Your task to perform on an android device: turn on showing notifications on the lock screen Image 0: 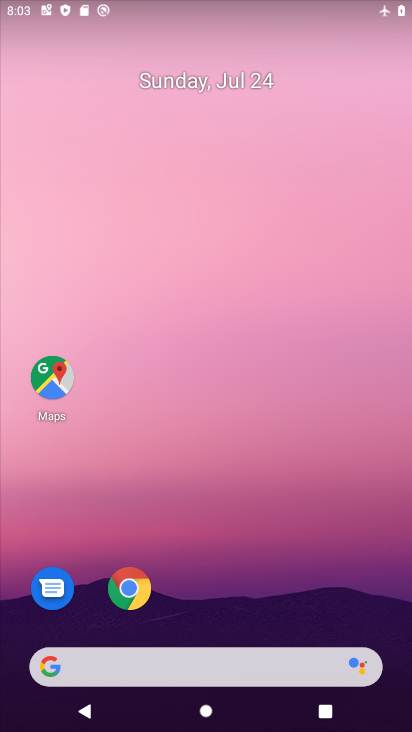
Step 0: drag from (330, 615) to (283, 58)
Your task to perform on an android device: turn on showing notifications on the lock screen Image 1: 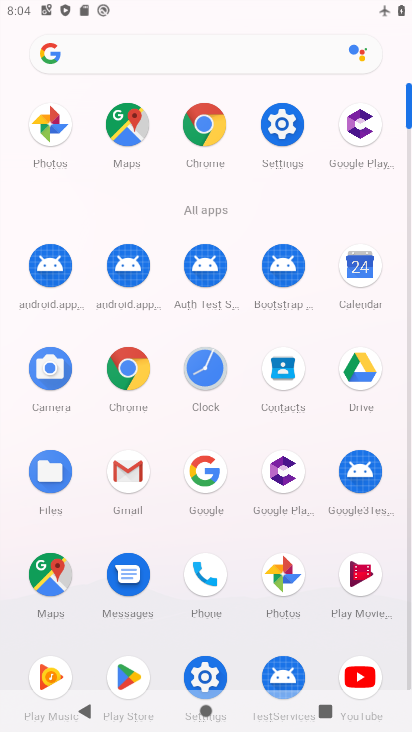
Step 1: click (280, 135)
Your task to perform on an android device: turn on showing notifications on the lock screen Image 2: 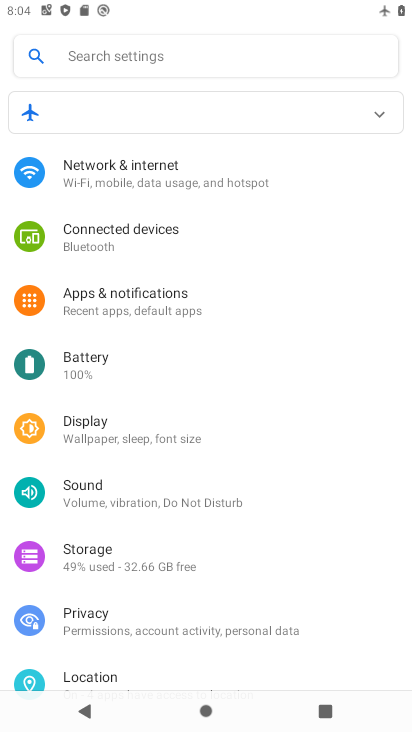
Step 2: click (210, 302)
Your task to perform on an android device: turn on showing notifications on the lock screen Image 3: 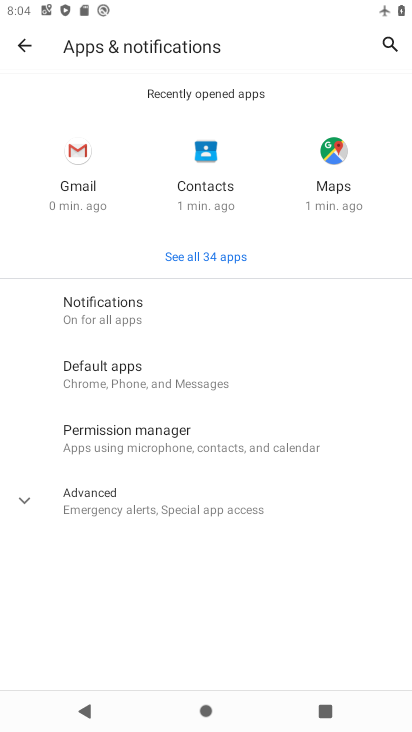
Step 3: click (248, 307)
Your task to perform on an android device: turn on showing notifications on the lock screen Image 4: 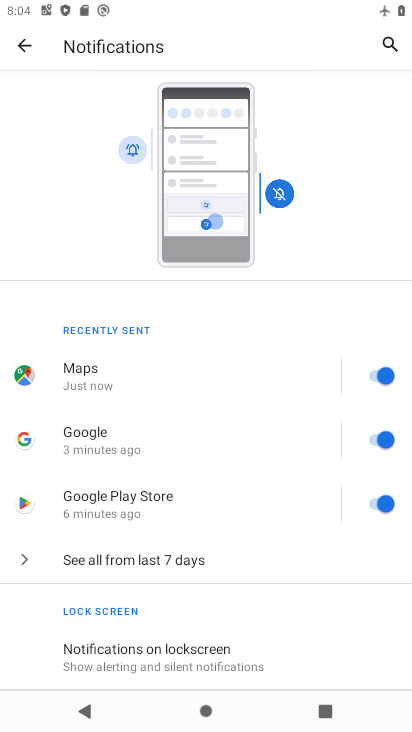
Step 4: click (254, 651)
Your task to perform on an android device: turn on showing notifications on the lock screen Image 5: 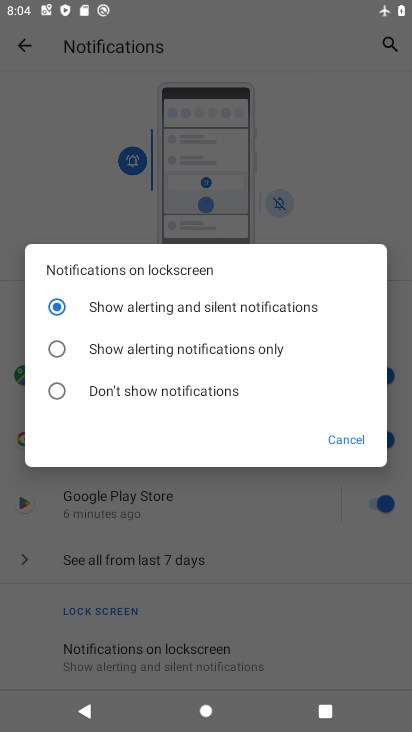
Step 5: task complete